Your task to perform on an android device: Show me popular games on the Play Store Image 0: 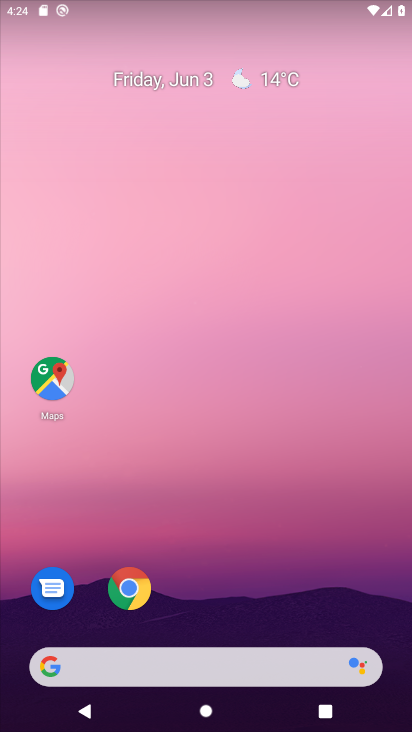
Step 0: drag from (124, 191) to (95, 40)
Your task to perform on an android device: Show me popular games on the Play Store Image 1: 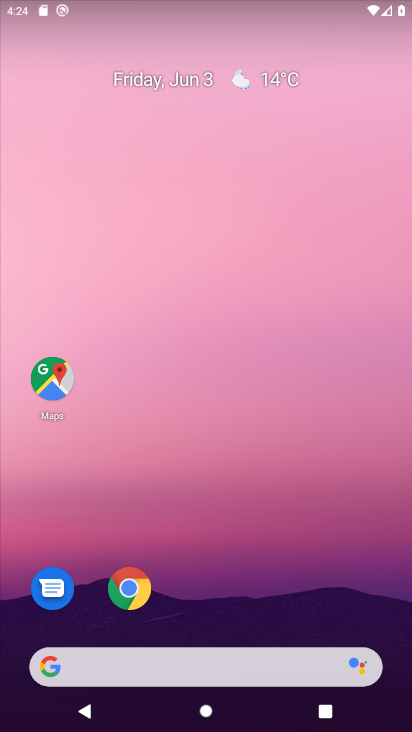
Step 1: drag from (206, 351) to (127, 14)
Your task to perform on an android device: Show me popular games on the Play Store Image 2: 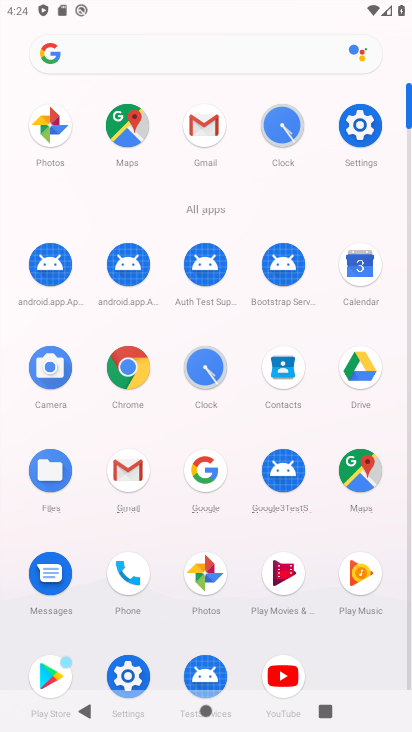
Step 2: drag from (25, 493) to (21, 243)
Your task to perform on an android device: Show me popular games on the Play Store Image 3: 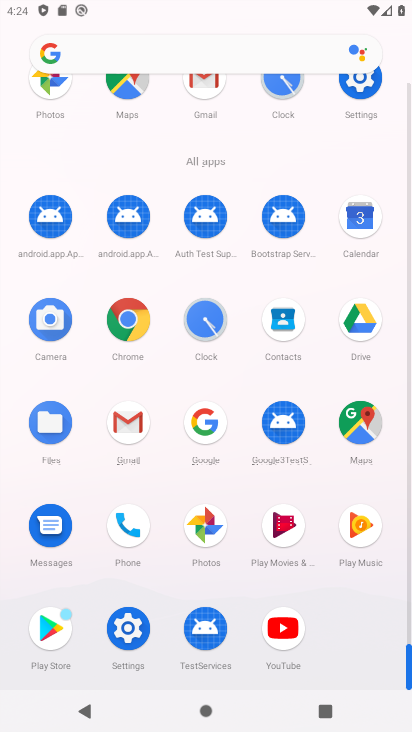
Step 3: click (47, 627)
Your task to perform on an android device: Show me popular games on the Play Store Image 4: 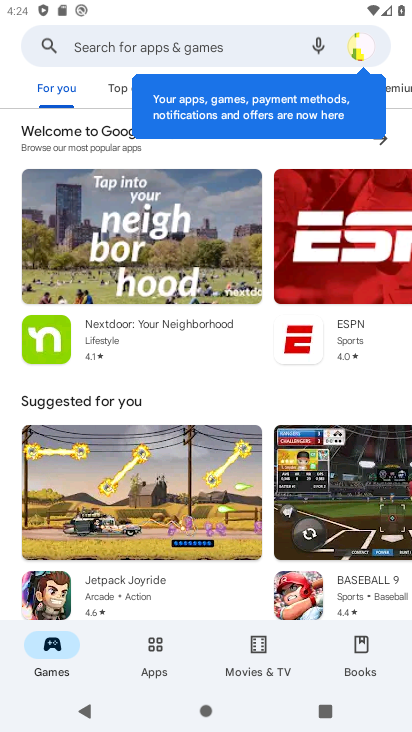
Step 4: task complete